Your task to perform on an android device: What's the weather like in London? Image 0: 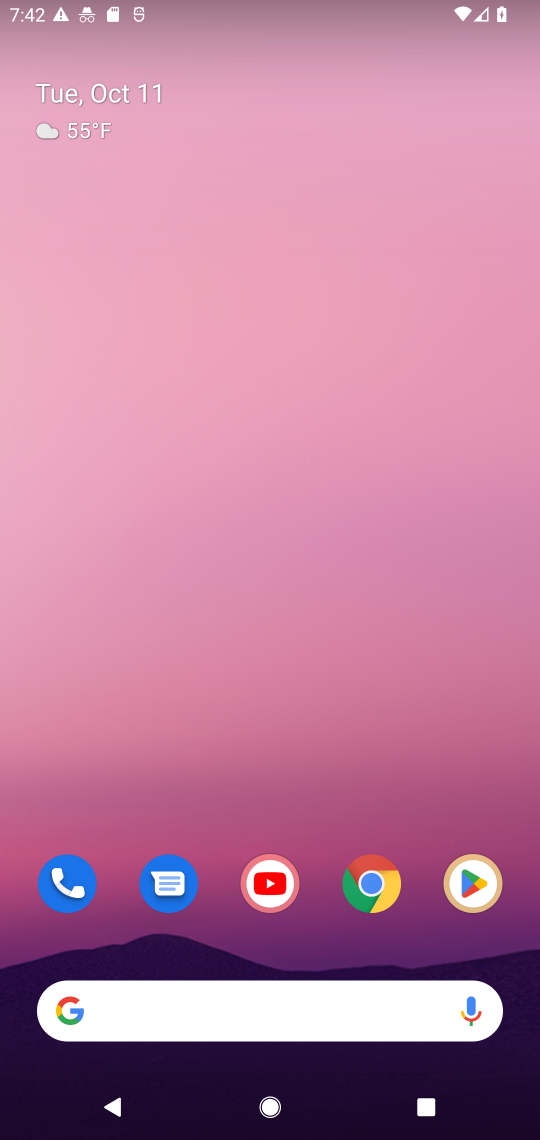
Step 0: drag from (313, 945) to (435, 241)
Your task to perform on an android device: What's the weather like in London? Image 1: 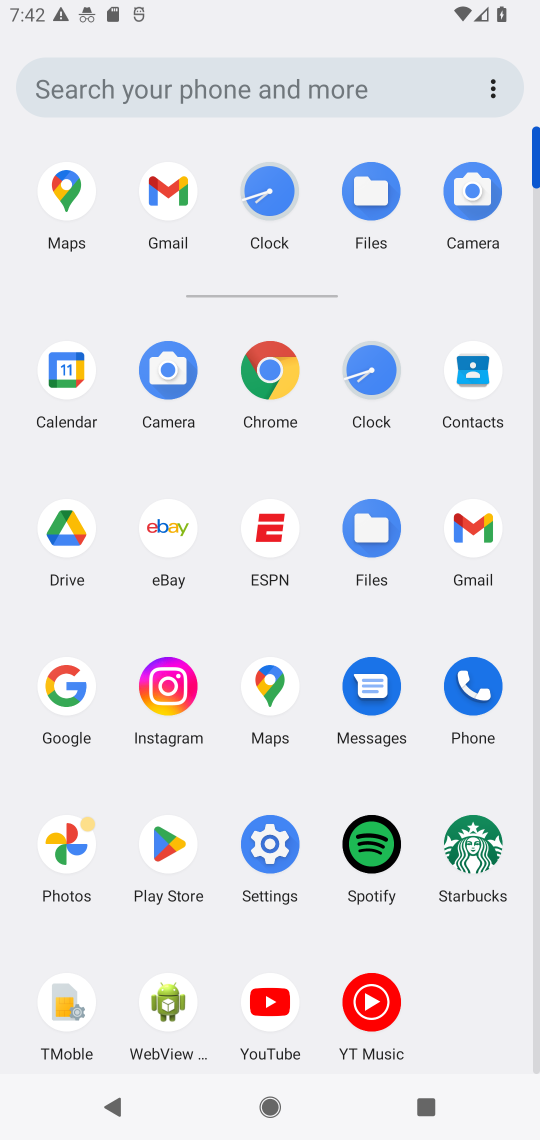
Step 1: click (280, 369)
Your task to perform on an android device: What's the weather like in London? Image 2: 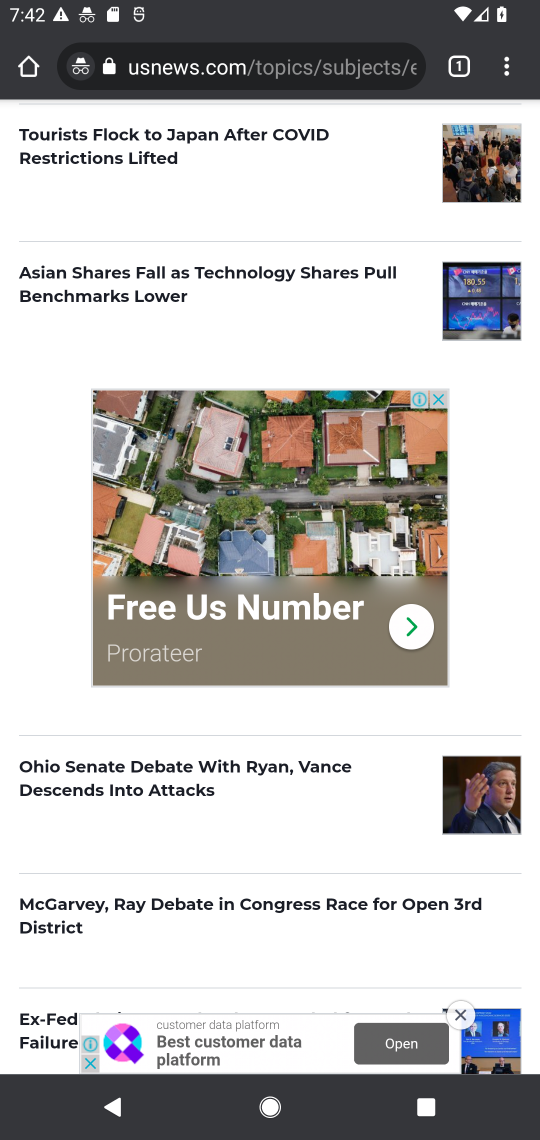
Step 2: click (239, 80)
Your task to perform on an android device: What's the weather like in London? Image 3: 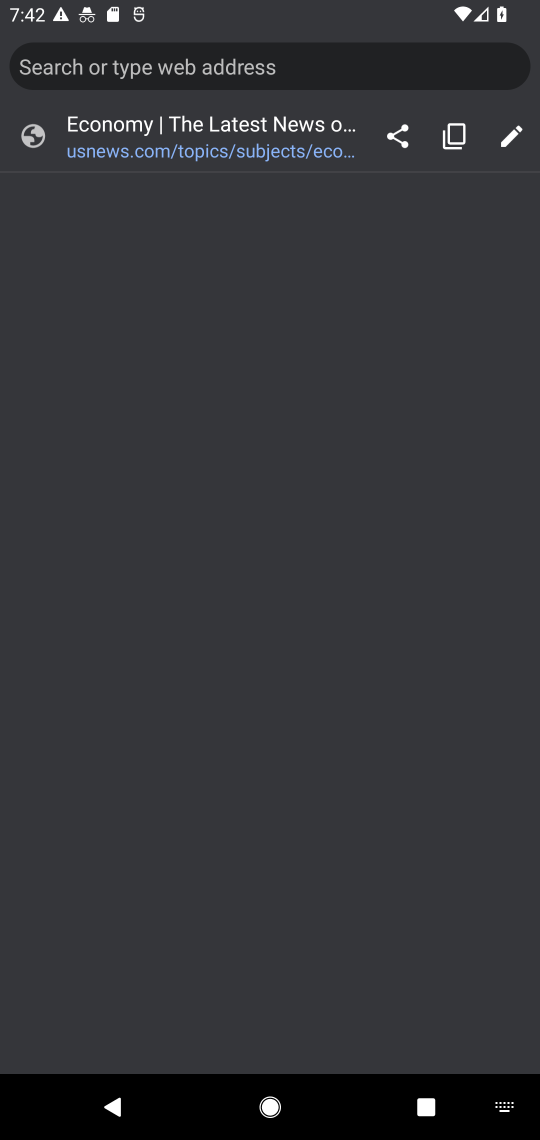
Step 3: type "What's the weather like in London?"
Your task to perform on an android device: What's the weather like in London? Image 4: 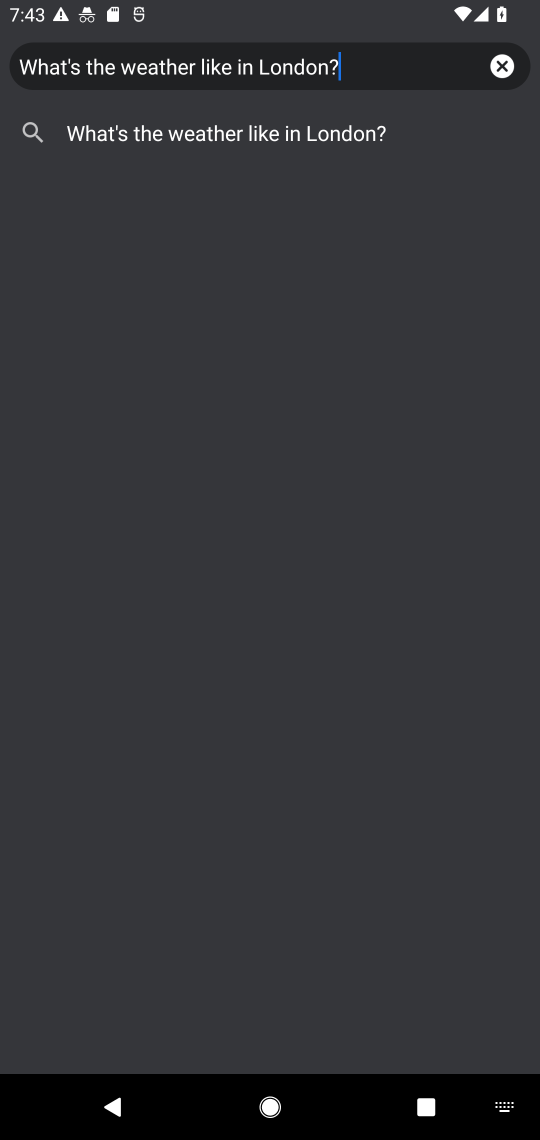
Step 4: press enter
Your task to perform on an android device: What's the weather like in London? Image 5: 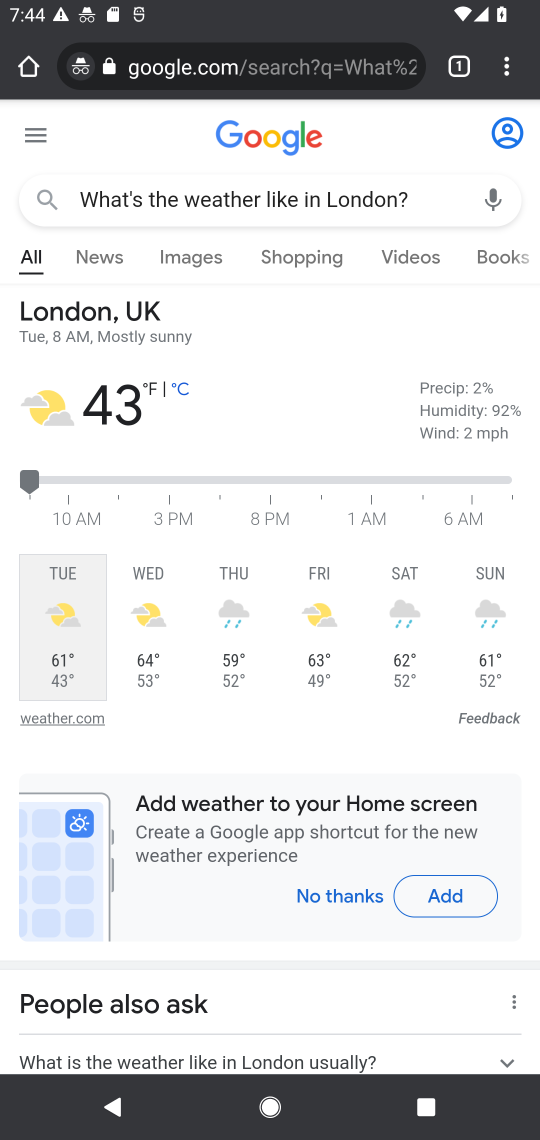
Step 5: task complete